Your task to perform on an android device: Search for logitech g pro on target, select the first entry, and add it to the cart. Image 0: 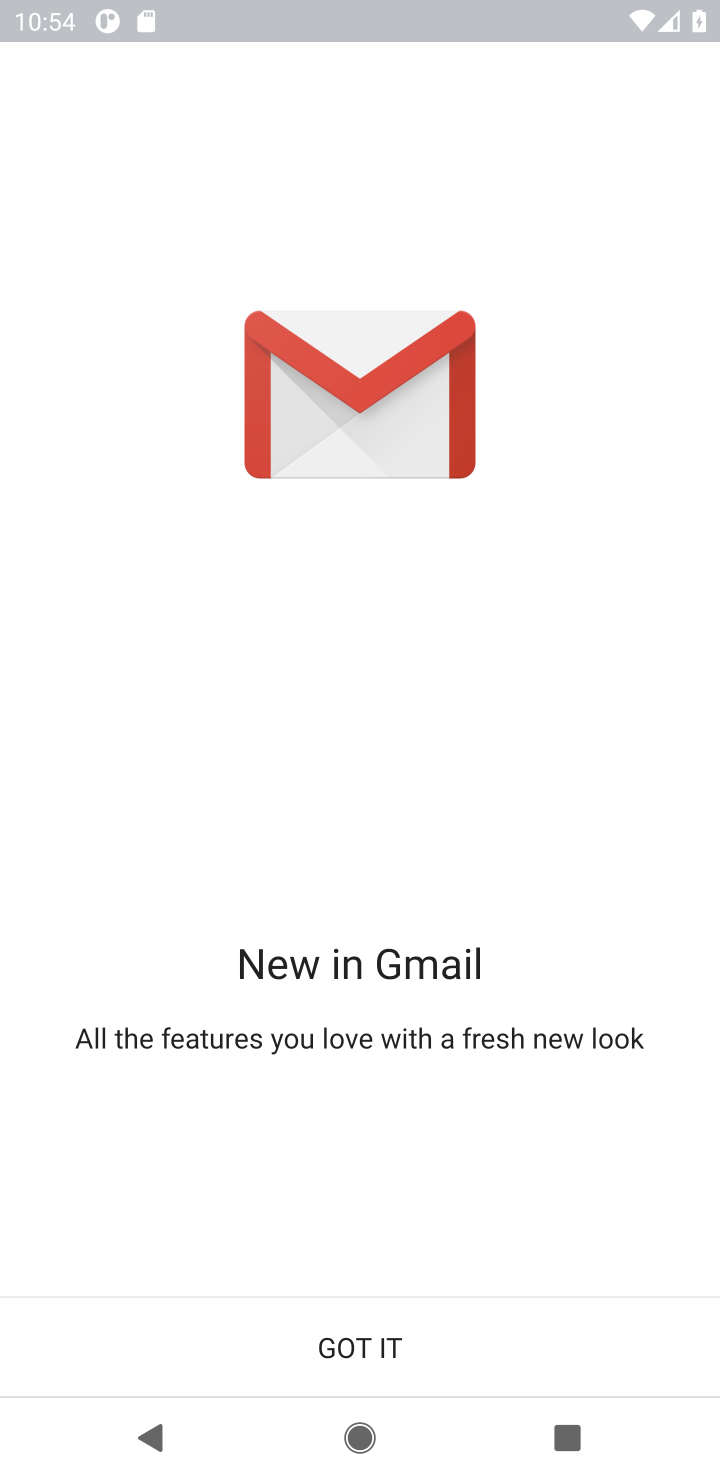
Step 0: press home button
Your task to perform on an android device: Search for logitech g pro on target, select the first entry, and add it to the cart. Image 1: 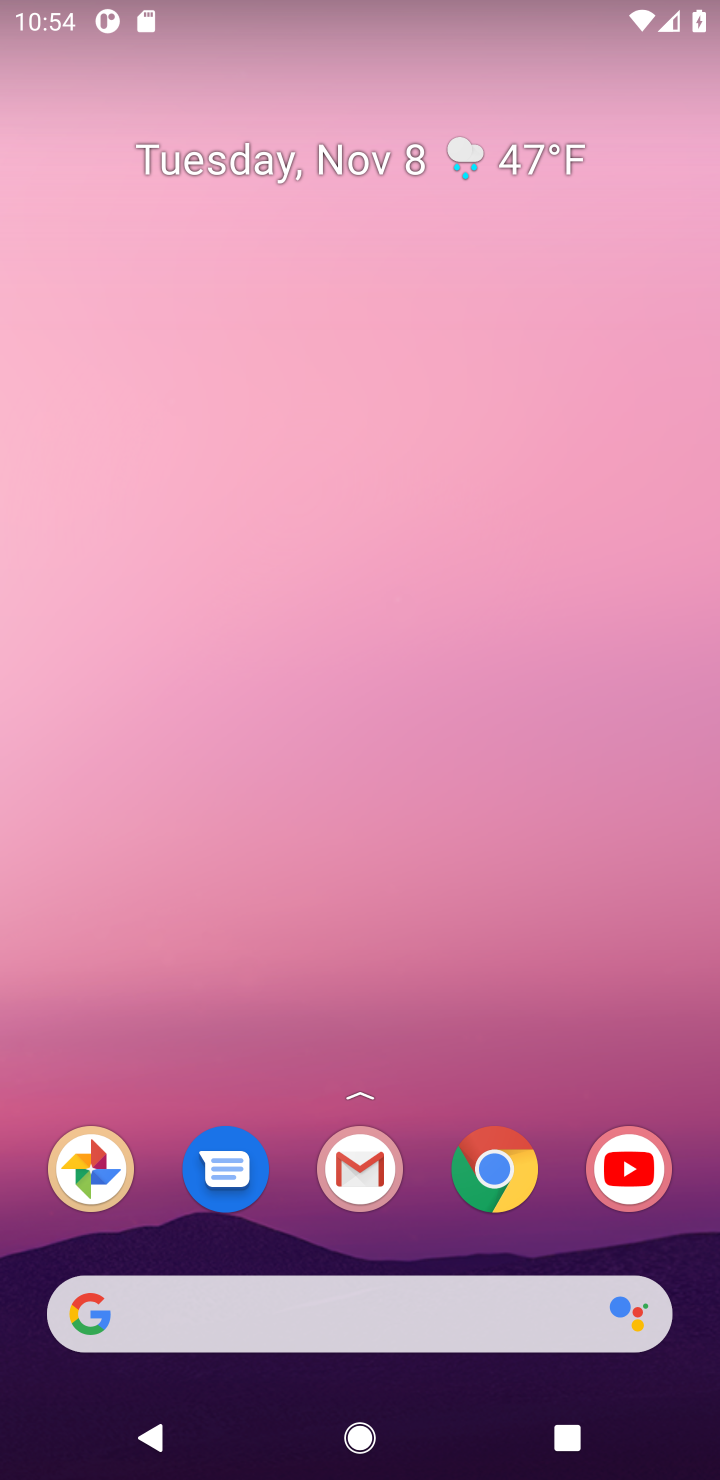
Step 1: click (511, 1165)
Your task to perform on an android device: Search for logitech g pro on target, select the first entry, and add it to the cart. Image 2: 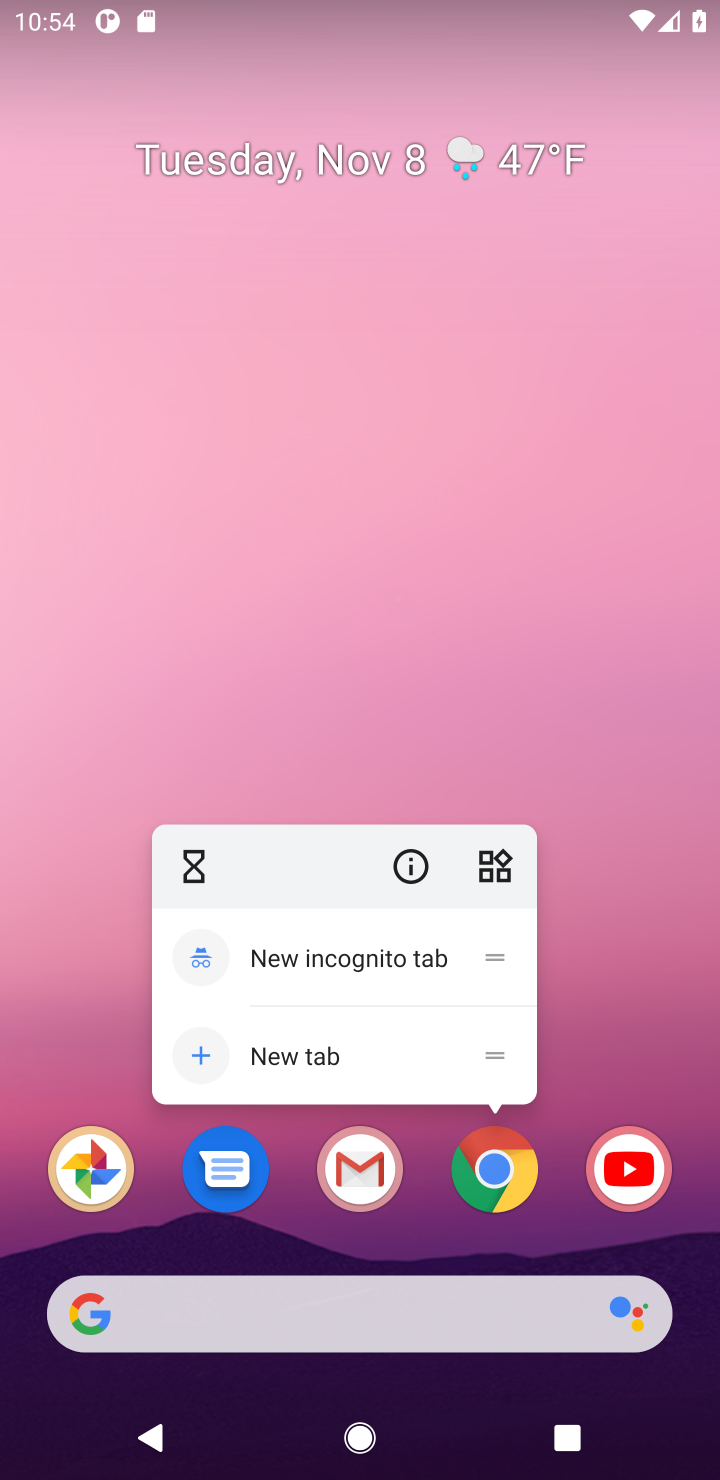
Step 2: click (511, 1165)
Your task to perform on an android device: Search for logitech g pro on target, select the first entry, and add it to the cart. Image 3: 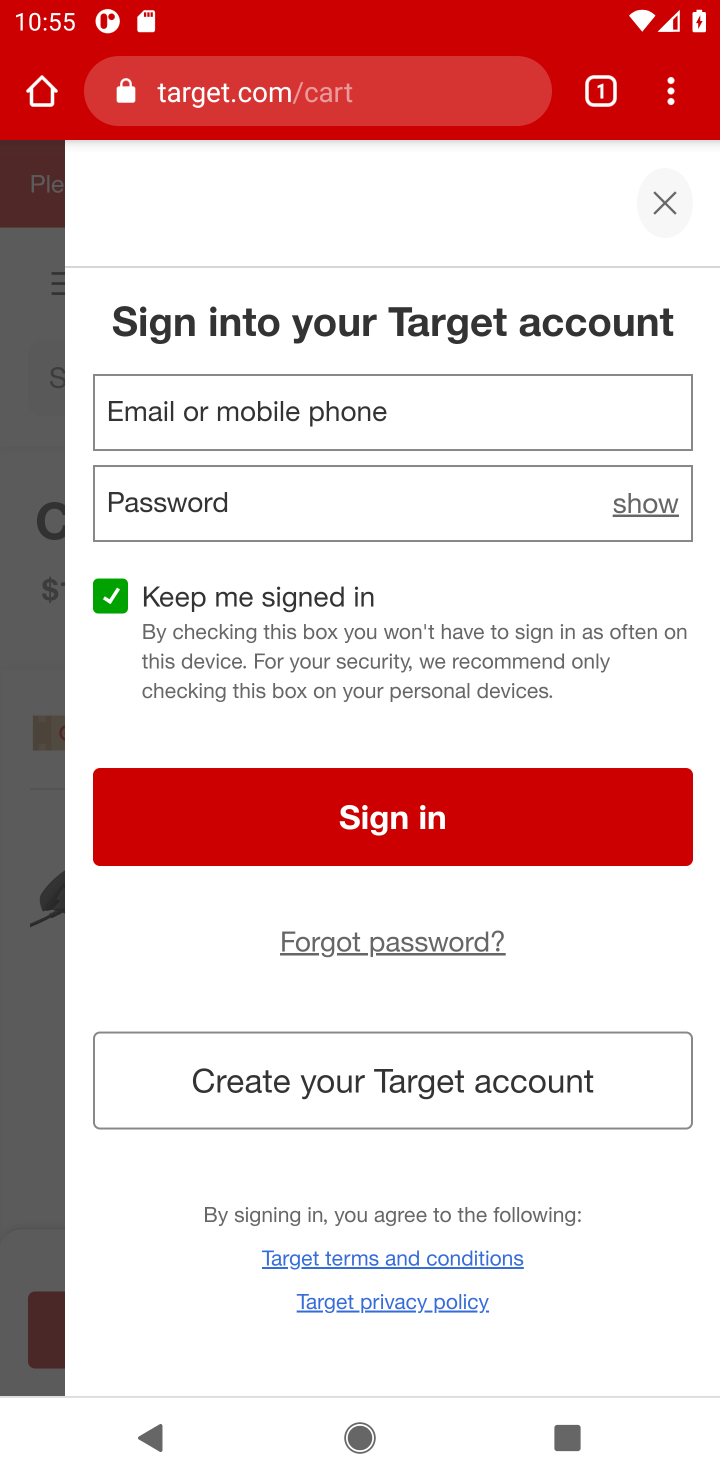
Step 3: click (659, 205)
Your task to perform on an android device: Search for logitech g pro on target, select the first entry, and add it to the cart. Image 4: 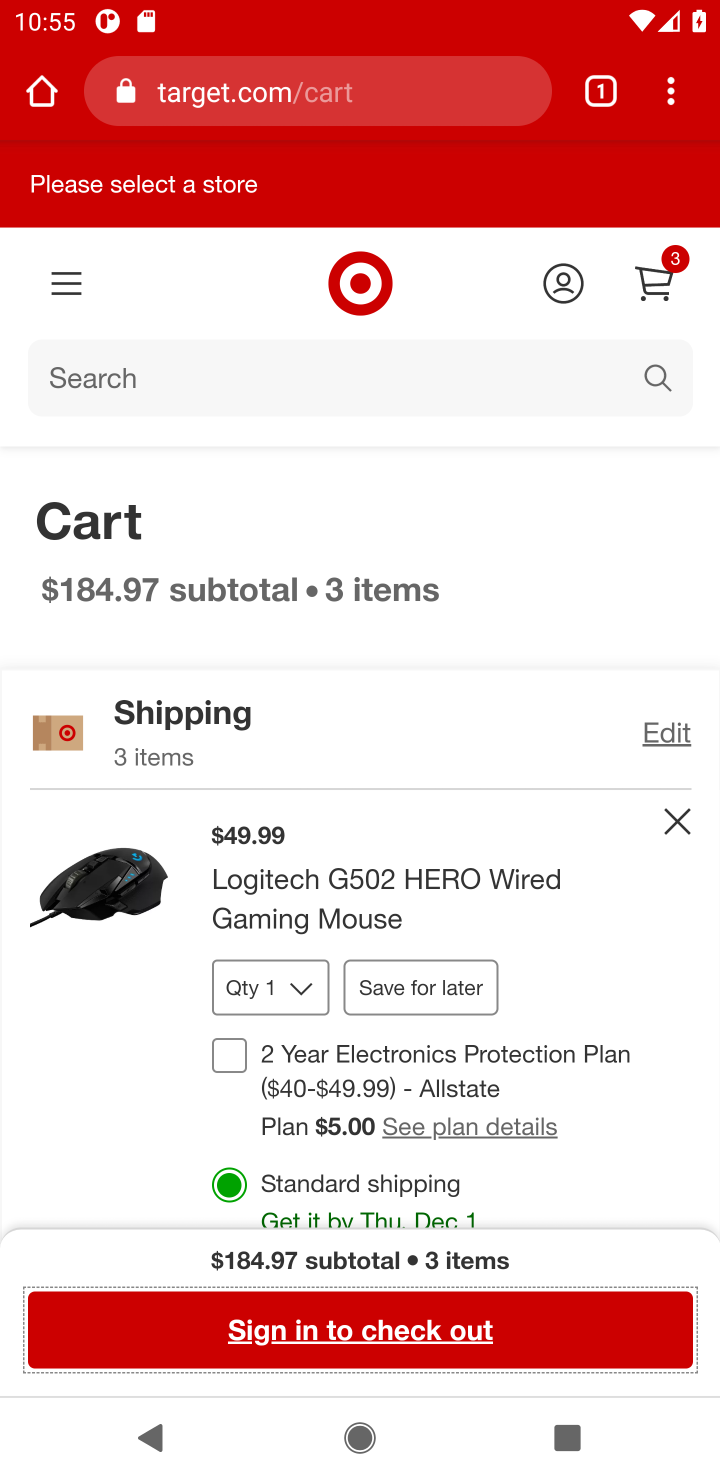
Step 4: click (648, 369)
Your task to perform on an android device: Search for logitech g pro on target, select the first entry, and add it to the cart. Image 5: 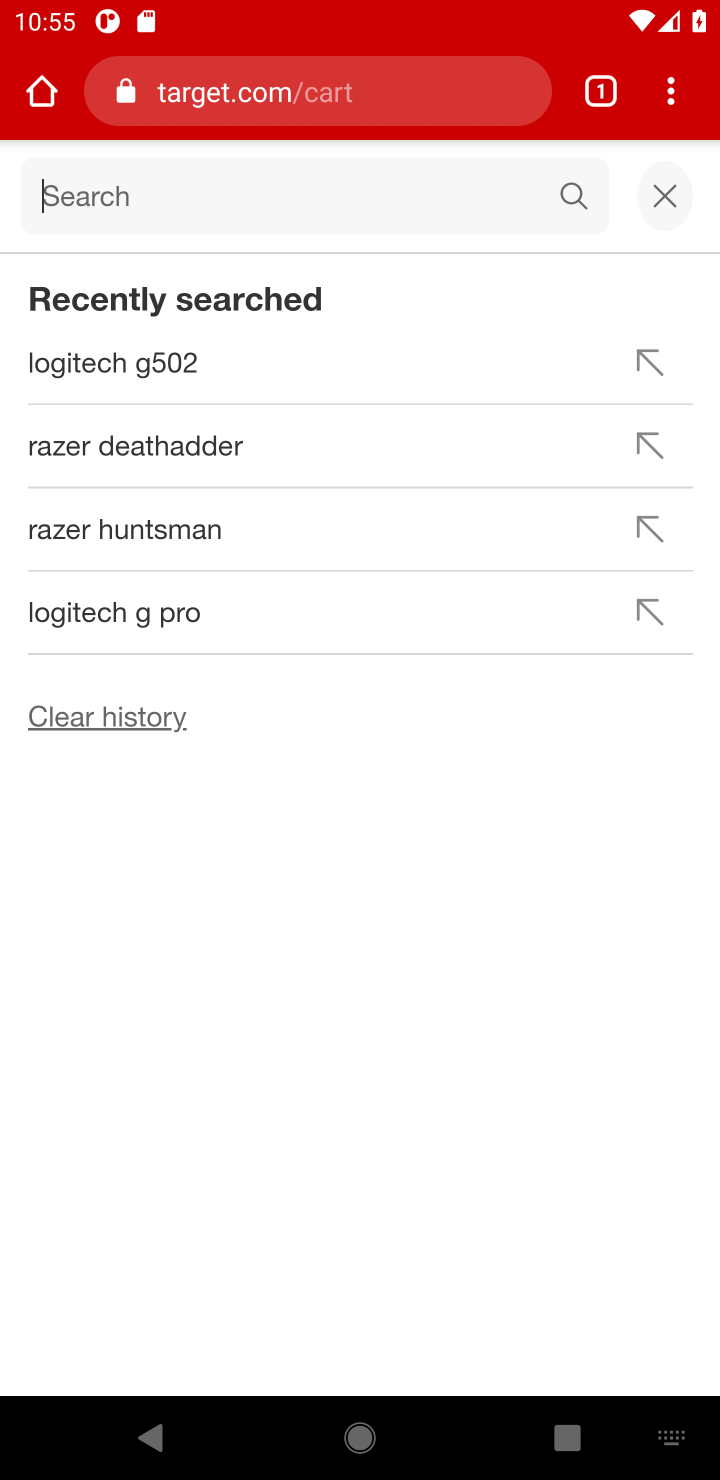
Step 5: type "logitech g pro"
Your task to perform on an android device: Search for logitech g pro on target, select the first entry, and add it to the cart. Image 6: 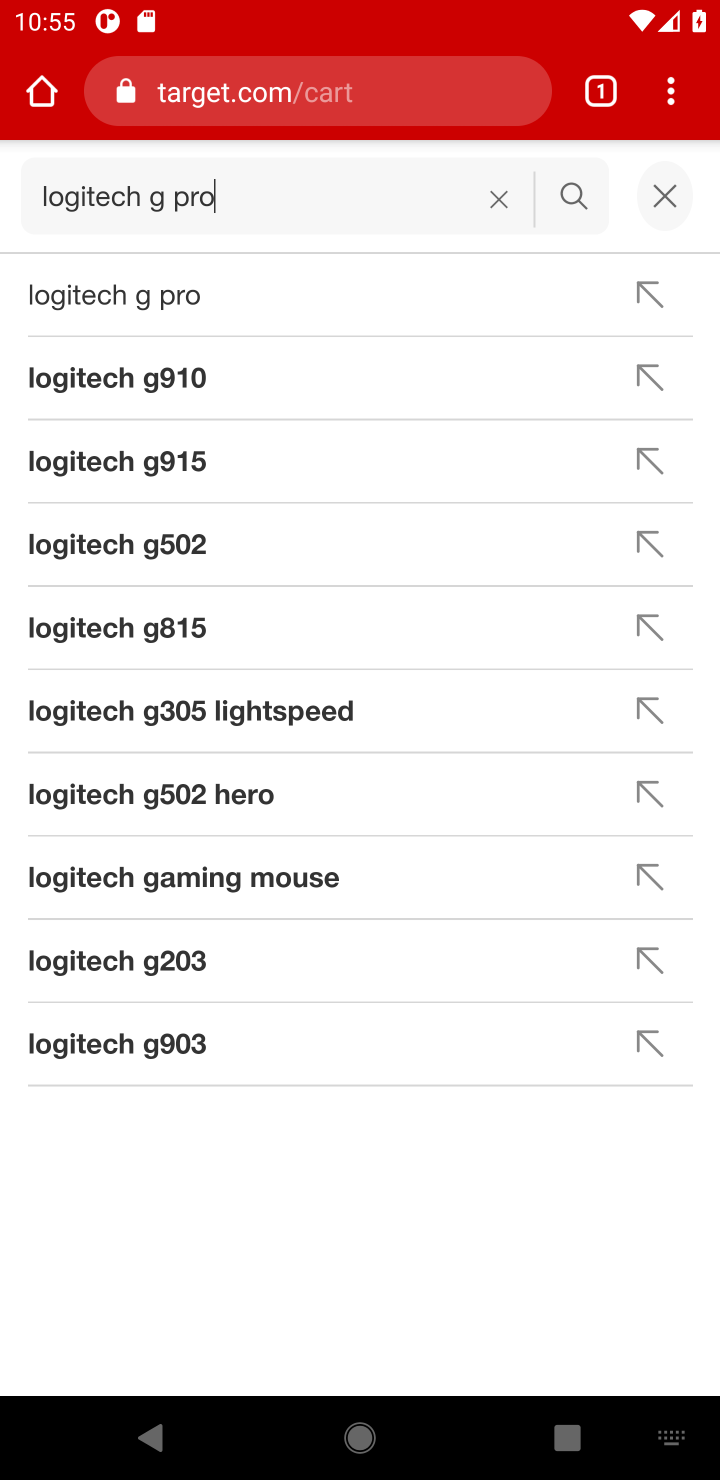
Step 6: click (167, 292)
Your task to perform on an android device: Search for logitech g pro on target, select the first entry, and add it to the cart. Image 7: 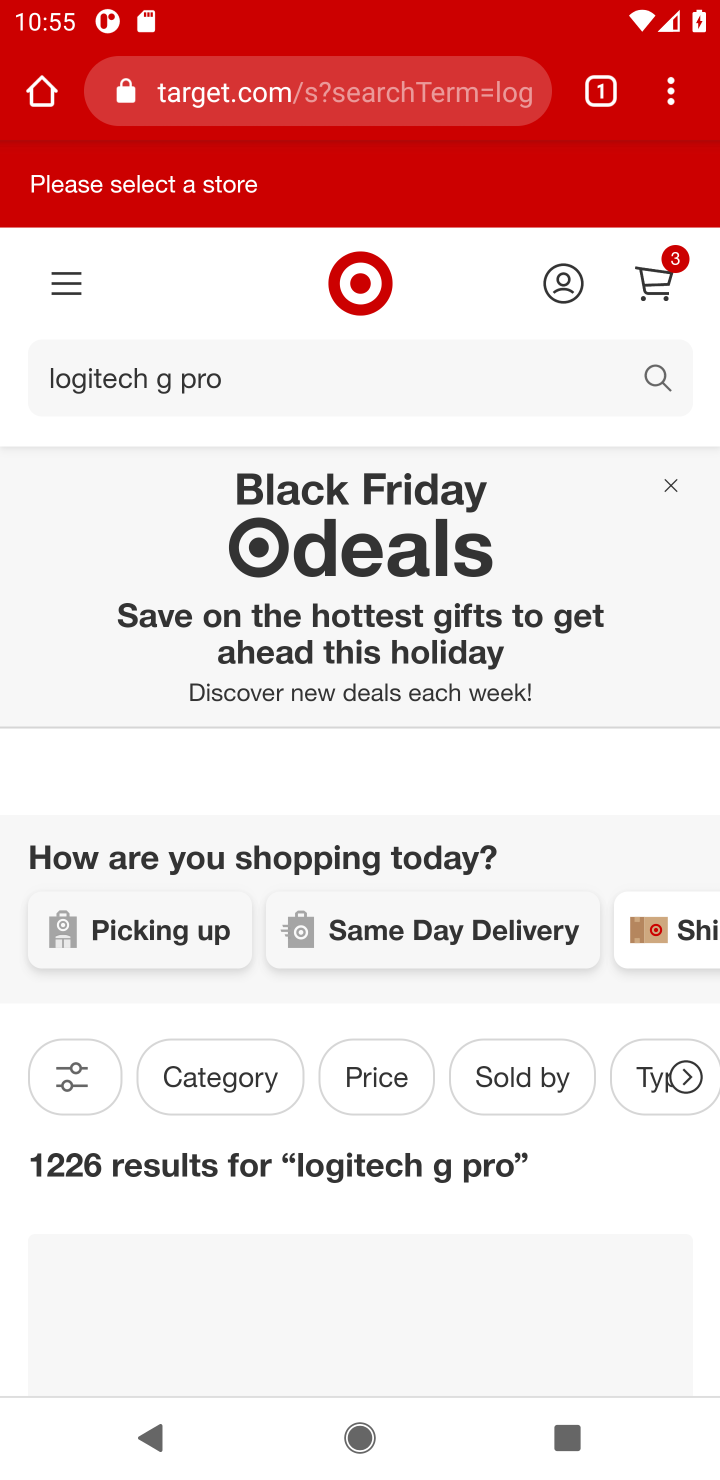
Step 7: task complete